Your task to perform on an android device: allow notifications from all sites in the chrome app Image 0: 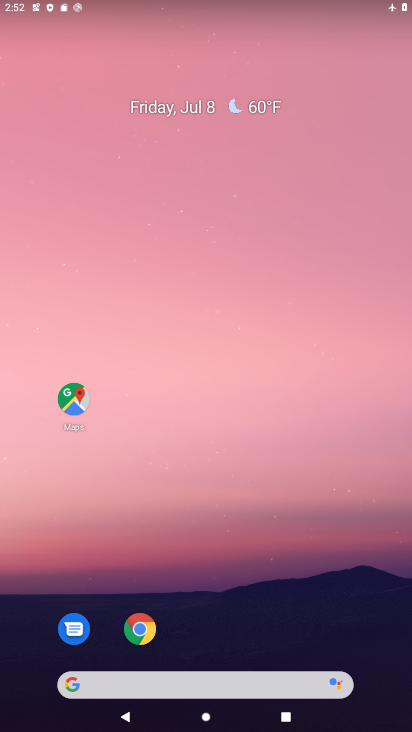
Step 0: click (138, 639)
Your task to perform on an android device: allow notifications from all sites in the chrome app Image 1: 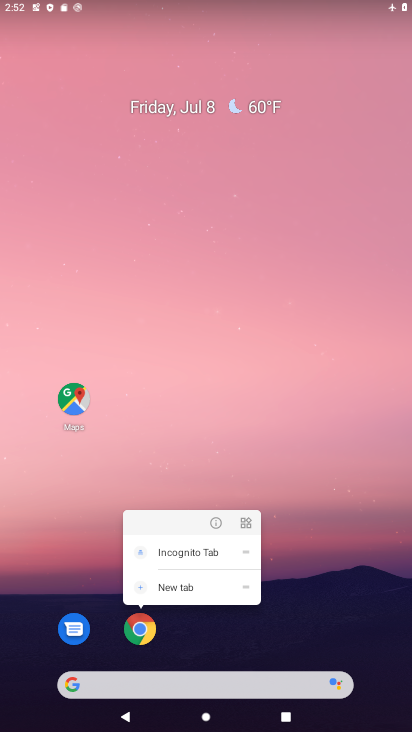
Step 1: click (128, 636)
Your task to perform on an android device: allow notifications from all sites in the chrome app Image 2: 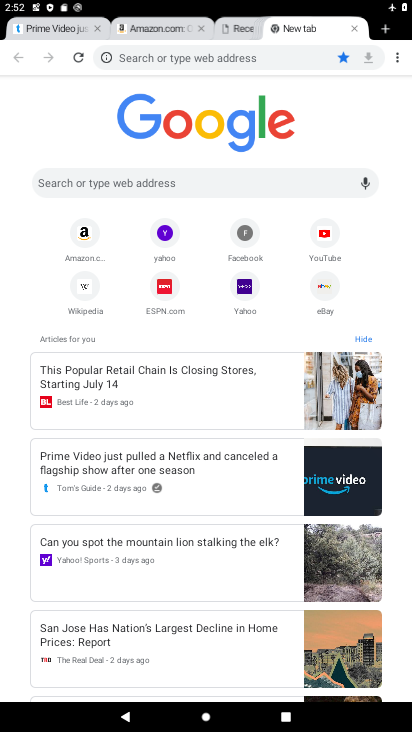
Step 2: click (394, 58)
Your task to perform on an android device: allow notifications from all sites in the chrome app Image 3: 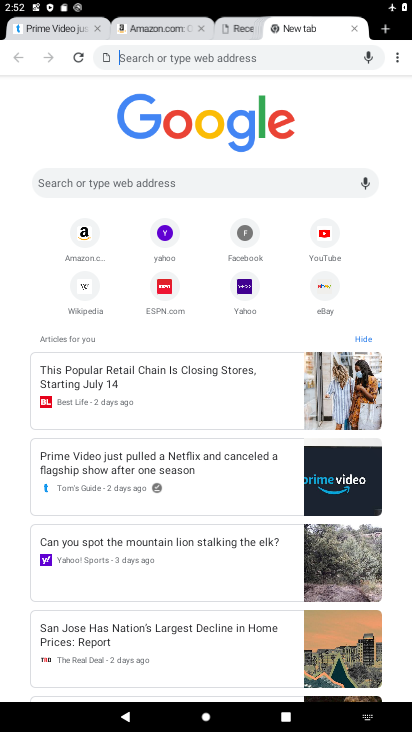
Step 3: click (394, 58)
Your task to perform on an android device: allow notifications from all sites in the chrome app Image 4: 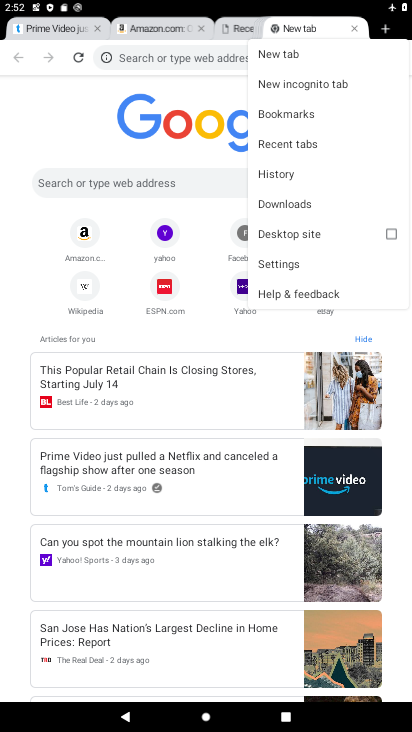
Step 4: click (285, 258)
Your task to perform on an android device: allow notifications from all sites in the chrome app Image 5: 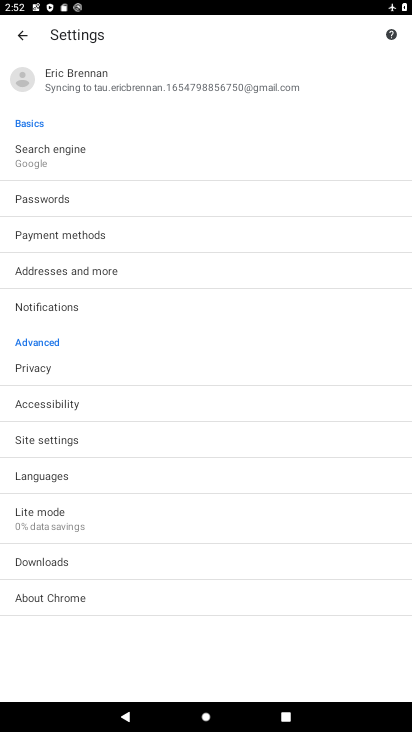
Step 5: click (113, 442)
Your task to perform on an android device: allow notifications from all sites in the chrome app Image 6: 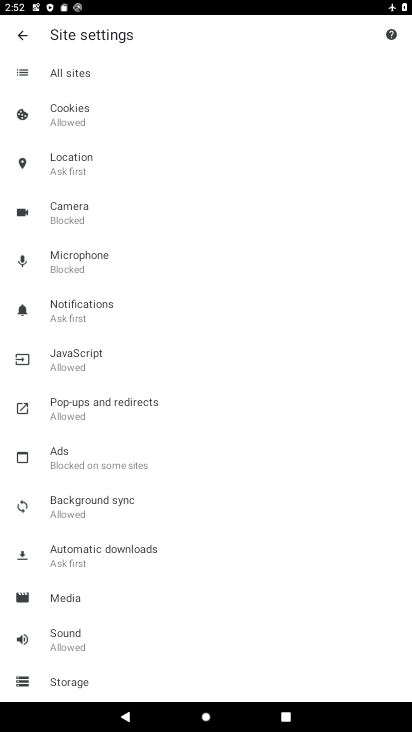
Step 6: click (72, 59)
Your task to perform on an android device: allow notifications from all sites in the chrome app Image 7: 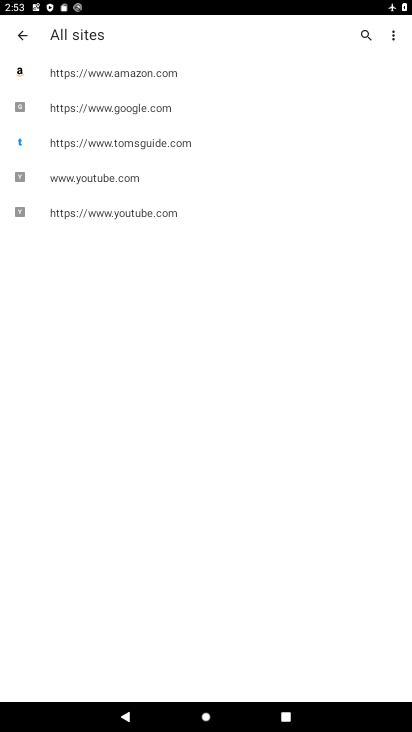
Step 7: click (161, 113)
Your task to perform on an android device: allow notifications from all sites in the chrome app Image 8: 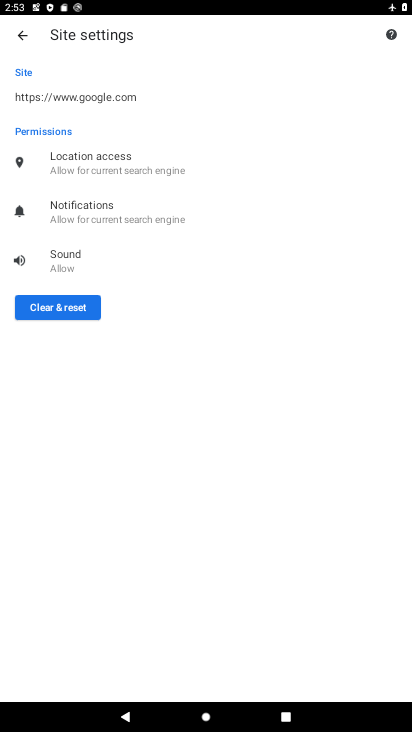
Step 8: click (114, 221)
Your task to perform on an android device: allow notifications from all sites in the chrome app Image 9: 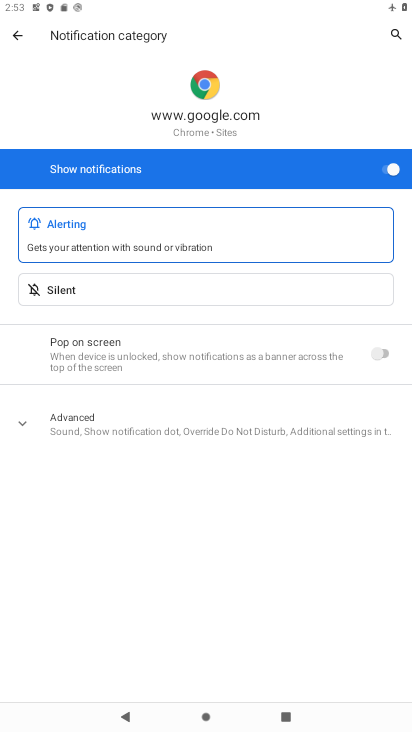
Step 9: task complete